Your task to perform on an android device: Search for the best rated kitchen reno kits on Lowes.com Image 0: 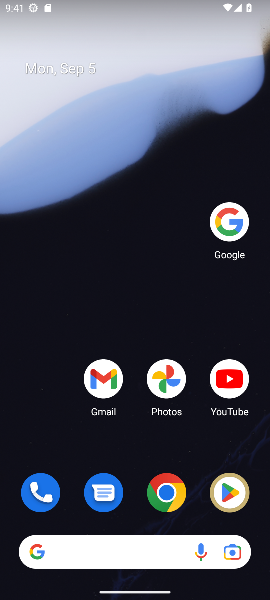
Step 0: click (212, 221)
Your task to perform on an android device: Search for the best rated kitchen reno kits on Lowes.com Image 1: 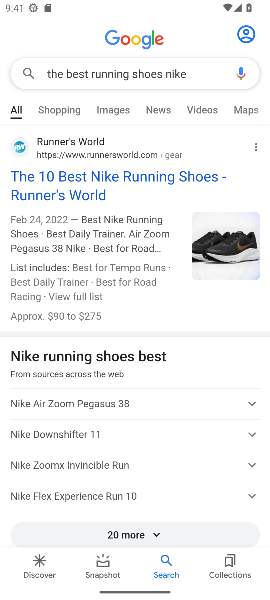
Step 1: click (157, 73)
Your task to perform on an android device: Search for the best rated kitchen reno kits on Lowes.com Image 2: 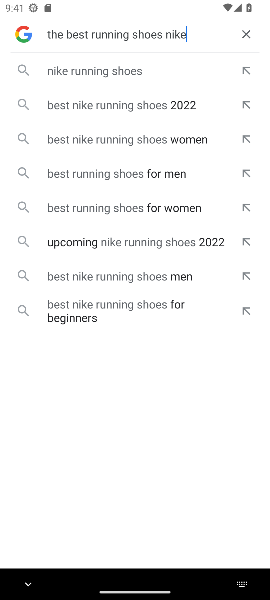
Step 2: click (253, 32)
Your task to perform on an android device: Search for the best rated kitchen reno kits on Lowes.com Image 3: 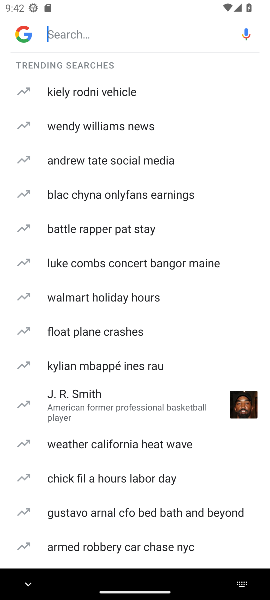
Step 3: click (120, 41)
Your task to perform on an android device: Search for the best rated kitchen reno kits on Lowes.com Image 4: 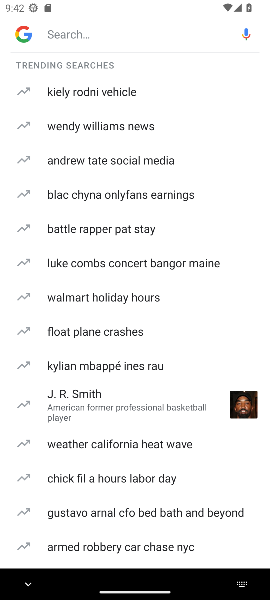
Step 4: click (109, 40)
Your task to perform on an android device: Search for the best rated kitchen reno kits on Lowes.com Image 5: 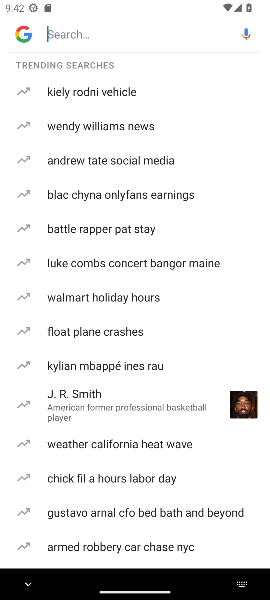
Step 5: type "the best rated kitchen reno kits on Lowes.com "
Your task to perform on an android device: Search for the best rated kitchen reno kits on Lowes.com Image 6: 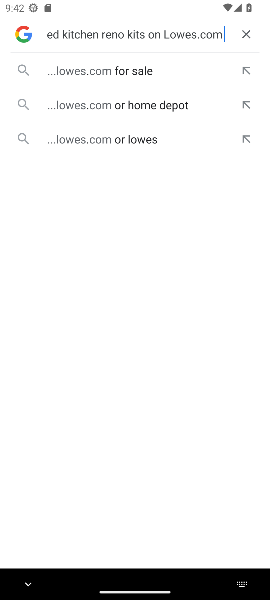
Step 6: click (119, 76)
Your task to perform on an android device: Search for the best rated kitchen reno kits on Lowes.com Image 7: 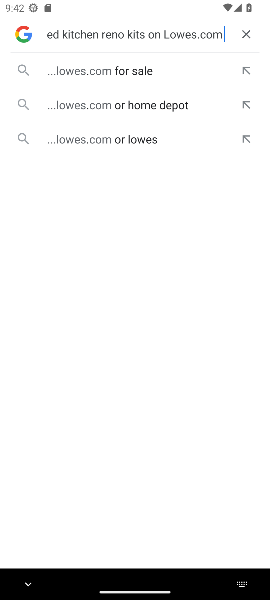
Step 7: click (119, 76)
Your task to perform on an android device: Search for the best rated kitchen reno kits on Lowes.com Image 8: 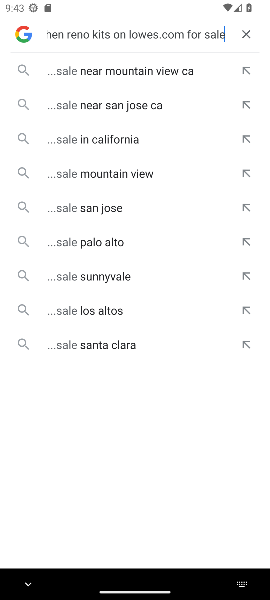
Step 8: click (130, 82)
Your task to perform on an android device: Search for the best rated kitchen reno kits on Lowes.com Image 9: 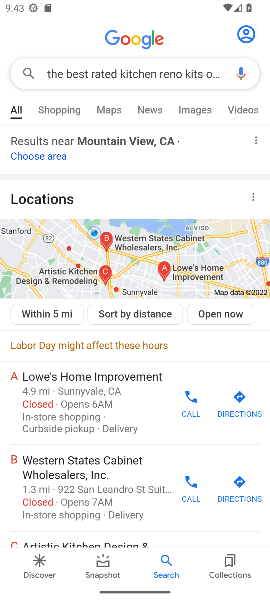
Step 9: task complete